Your task to perform on an android device: toggle show notifications on the lock screen Image 0: 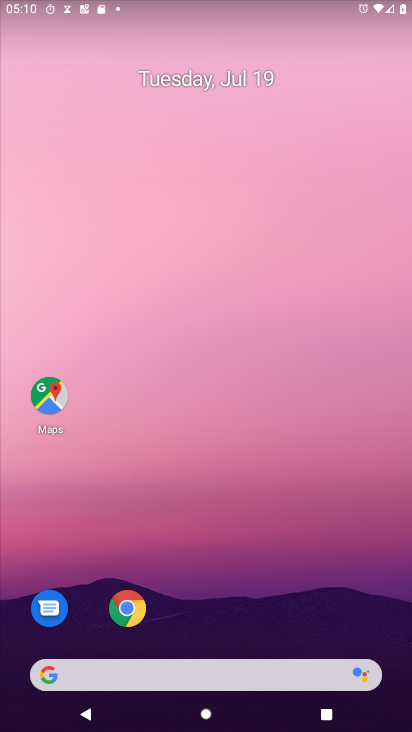
Step 0: drag from (251, 666) to (232, 90)
Your task to perform on an android device: toggle show notifications on the lock screen Image 1: 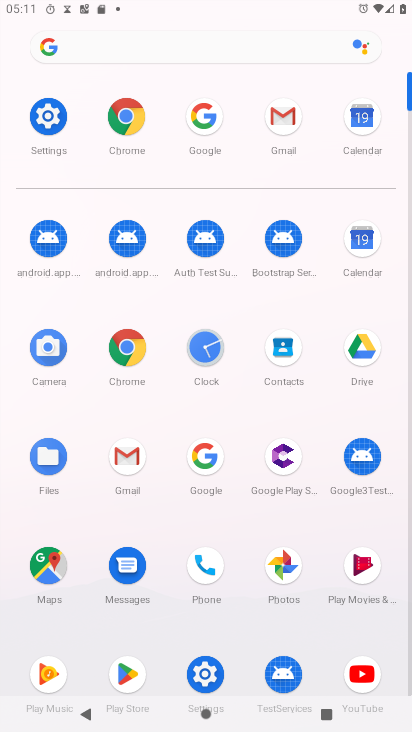
Step 1: click (48, 116)
Your task to perform on an android device: toggle show notifications on the lock screen Image 2: 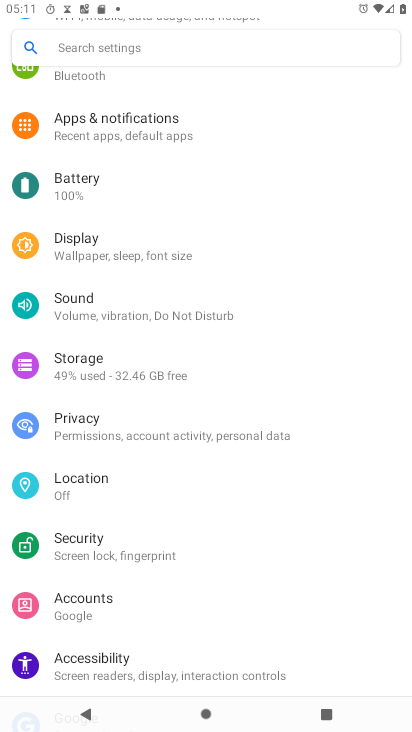
Step 2: click (109, 117)
Your task to perform on an android device: toggle show notifications on the lock screen Image 3: 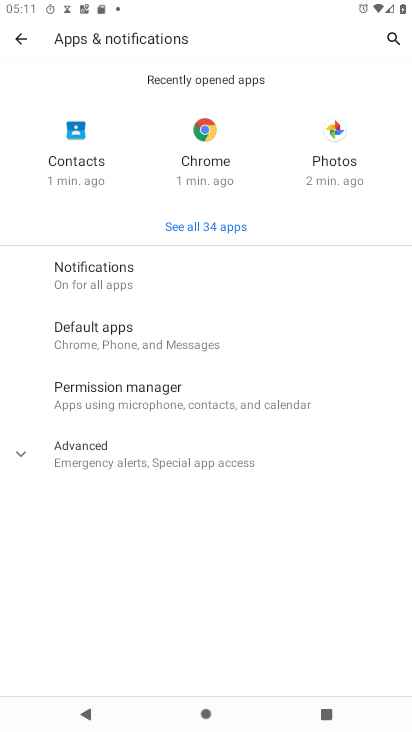
Step 3: click (100, 278)
Your task to perform on an android device: toggle show notifications on the lock screen Image 4: 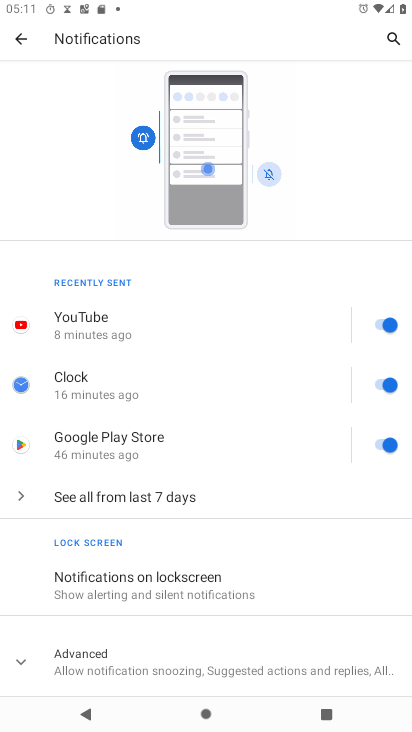
Step 4: click (161, 588)
Your task to perform on an android device: toggle show notifications on the lock screen Image 5: 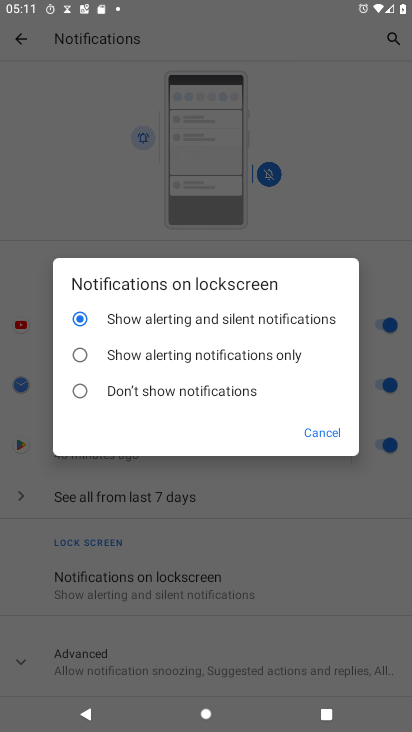
Step 5: click (76, 391)
Your task to perform on an android device: toggle show notifications on the lock screen Image 6: 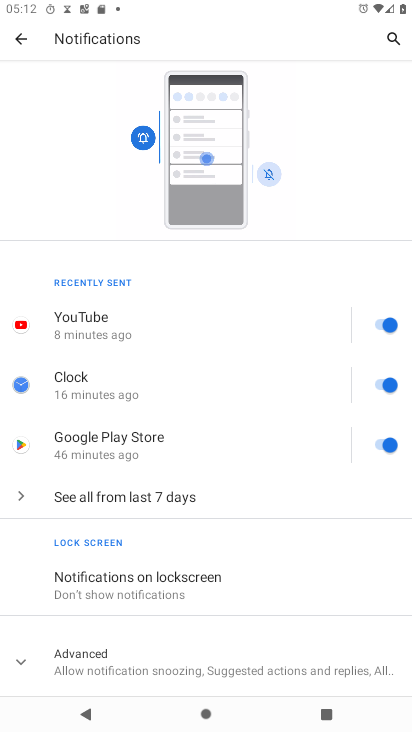
Step 6: task complete